Your task to perform on an android device: What's the weather? Image 0: 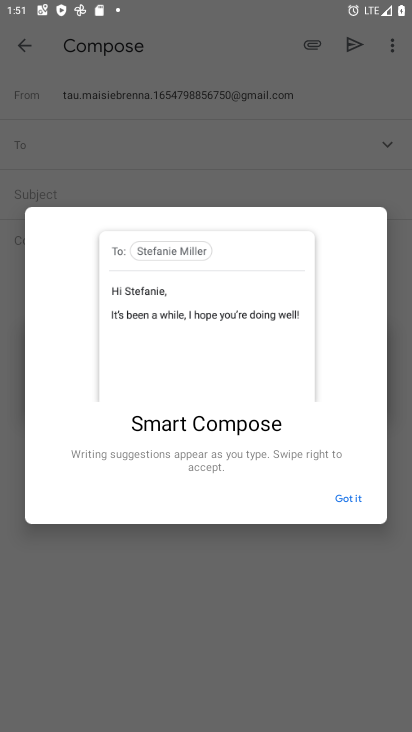
Step 0: press home button
Your task to perform on an android device: What's the weather? Image 1: 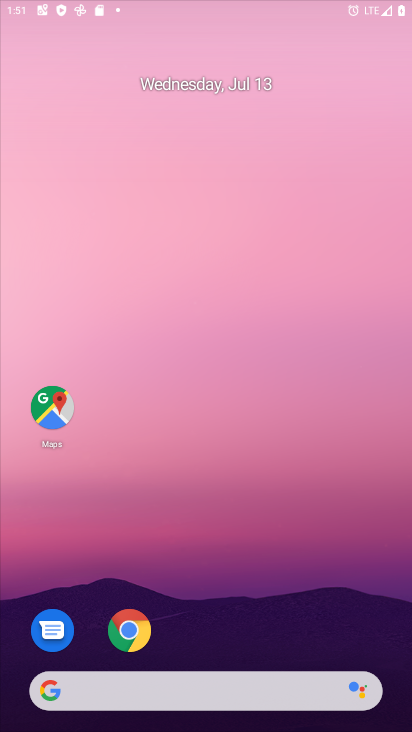
Step 1: drag from (387, 453) to (294, 14)
Your task to perform on an android device: What's the weather? Image 2: 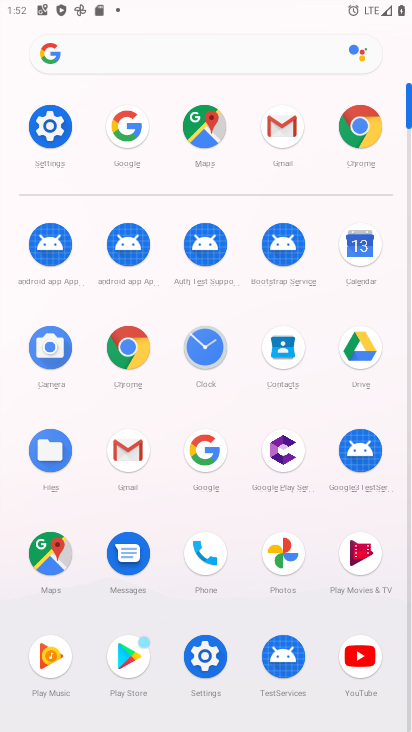
Step 2: click (207, 458)
Your task to perform on an android device: What's the weather? Image 3: 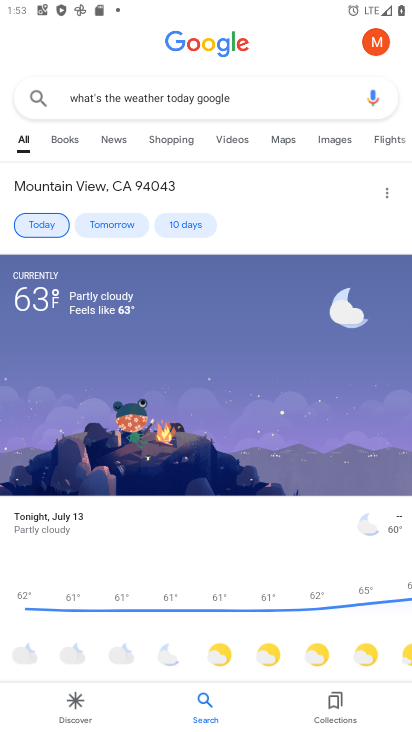
Step 3: press back button
Your task to perform on an android device: What's the weather? Image 4: 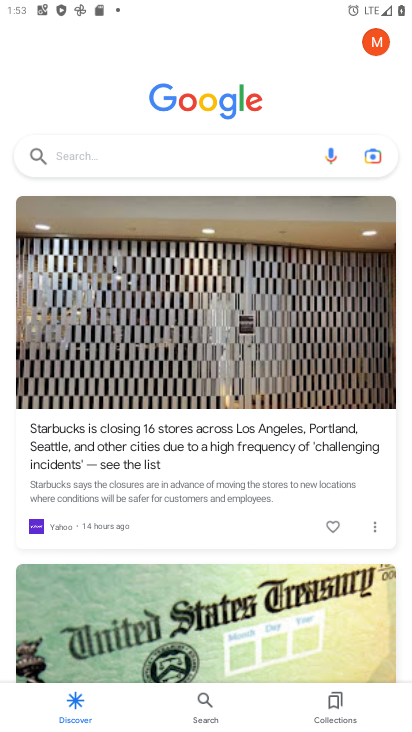
Step 4: click (120, 151)
Your task to perform on an android device: What's the weather? Image 5: 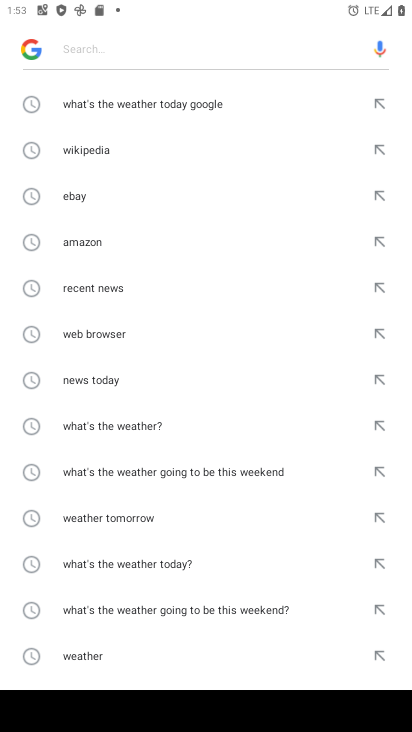
Step 5: click (174, 567)
Your task to perform on an android device: What's the weather? Image 6: 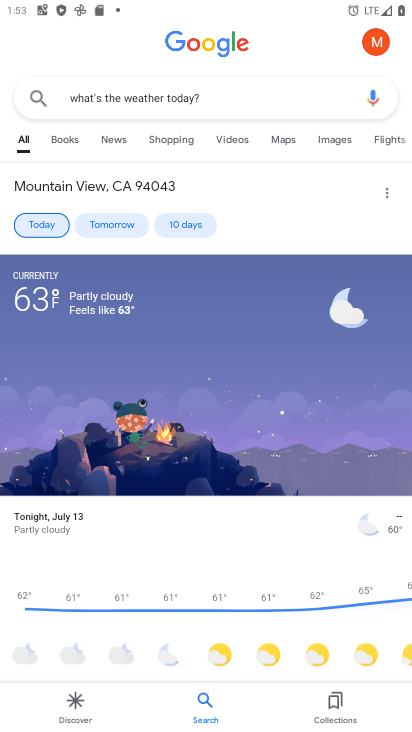
Step 6: task complete